Your task to perform on an android device: turn on wifi Image 0: 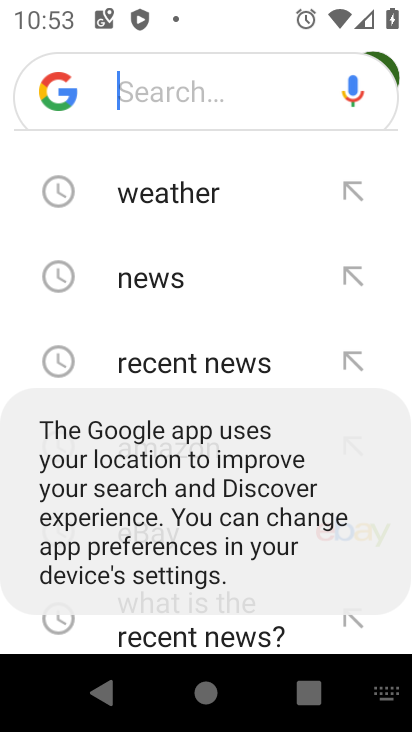
Step 0: press home button
Your task to perform on an android device: turn on wifi Image 1: 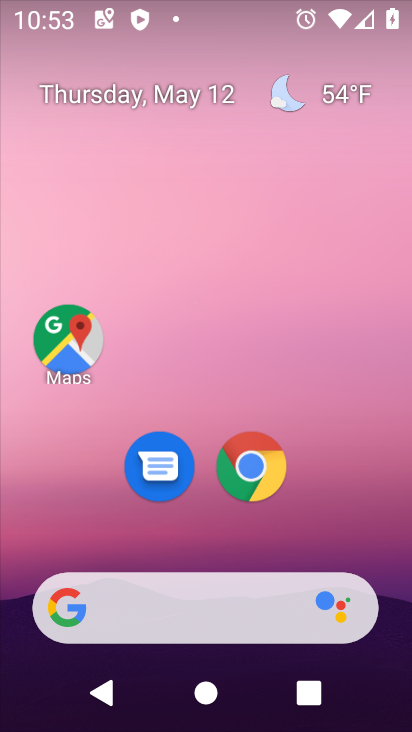
Step 1: drag from (361, 515) to (374, 142)
Your task to perform on an android device: turn on wifi Image 2: 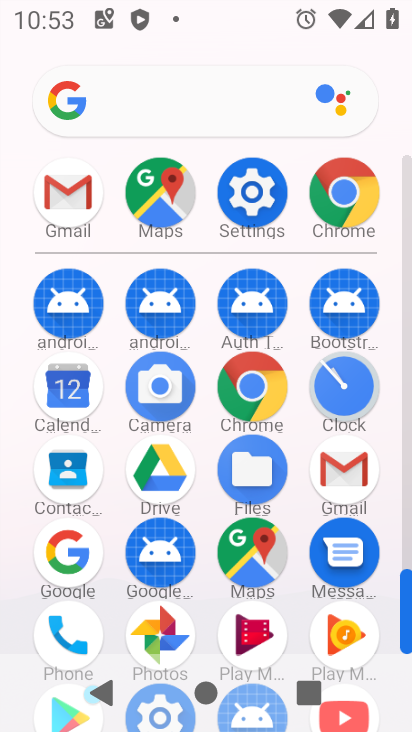
Step 2: click (261, 209)
Your task to perform on an android device: turn on wifi Image 3: 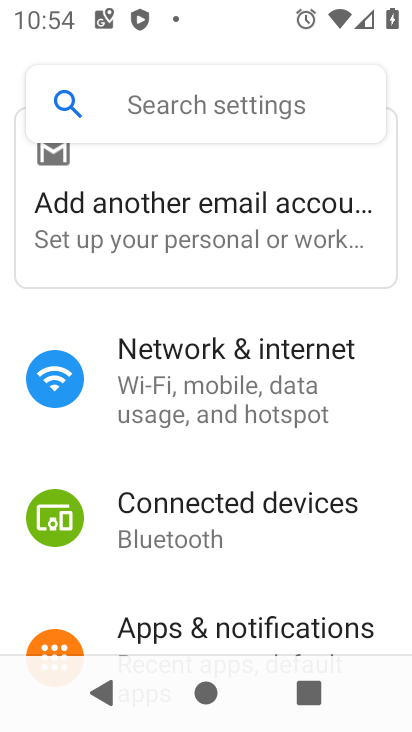
Step 3: click (240, 383)
Your task to perform on an android device: turn on wifi Image 4: 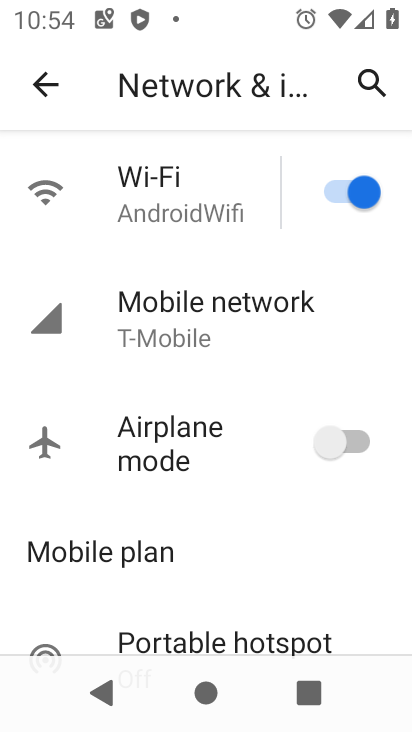
Step 4: click (191, 213)
Your task to perform on an android device: turn on wifi Image 5: 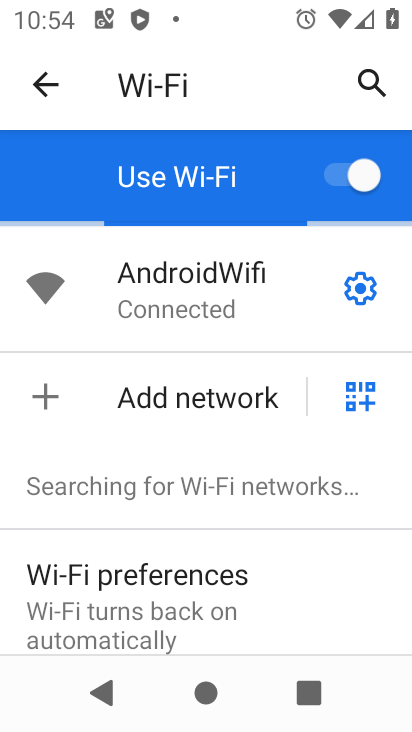
Step 5: task complete